Your task to perform on an android device: Go to calendar. Show me events next week Image 0: 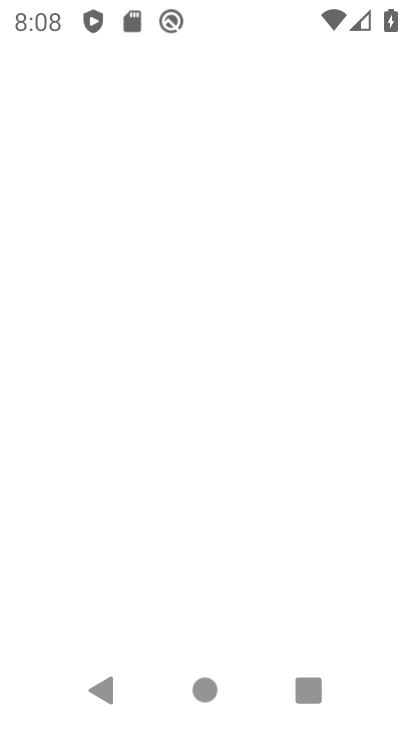
Step 0: click (181, 535)
Your task to perform on an android device: Go to calendar. Show me events next week Image 1: 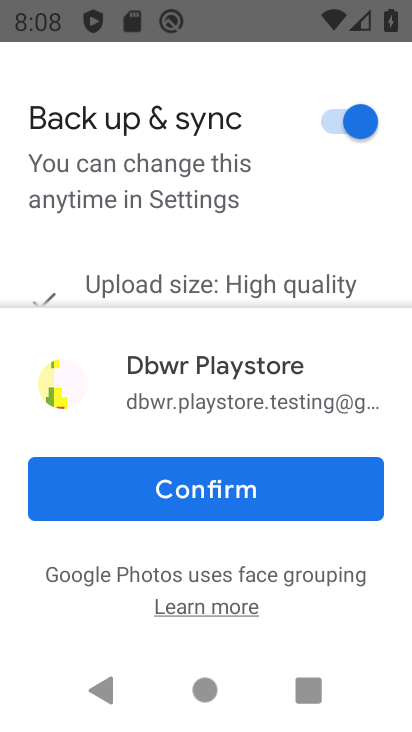
Step 1: click (213, 685)
Your task to perform on an android device: Go to calendar. Show me events next week Image 2: 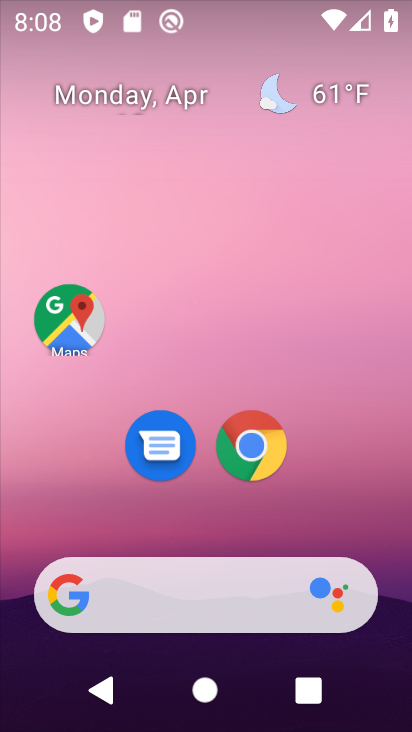
Step 2: drag from (183, 554) to (264, 150)
Your task to perform on an android device: Go to calendar. Show me events next week Image 3: 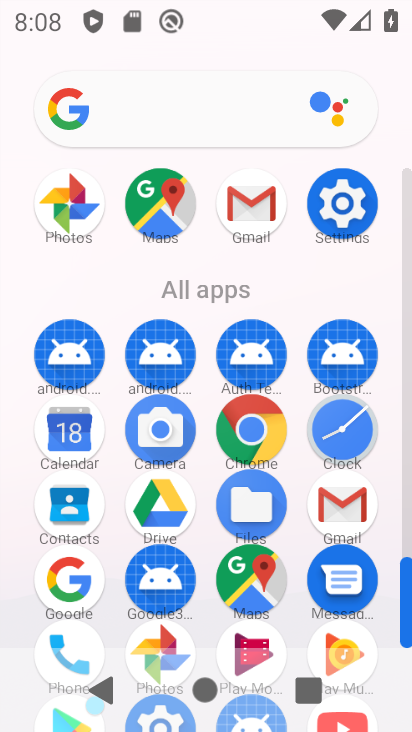
Step 3: click (64, 433)
Your task to perform on an android device: Go to calendar. Show me events next week Image 4: 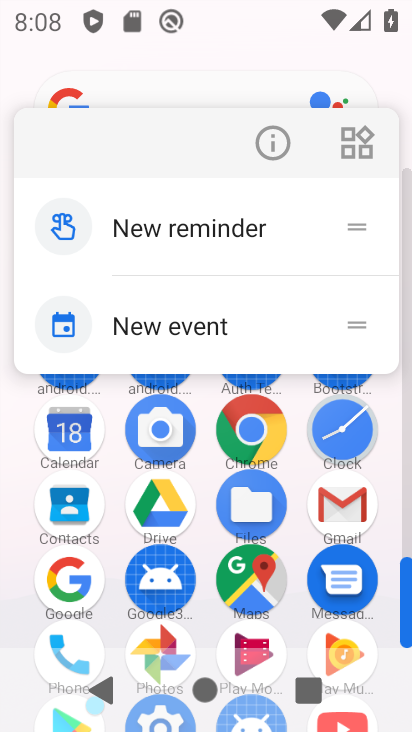
Step 4: click (65, 421)
Your task to perform on an android device: Go to calendar. Show me events next week Image 5: 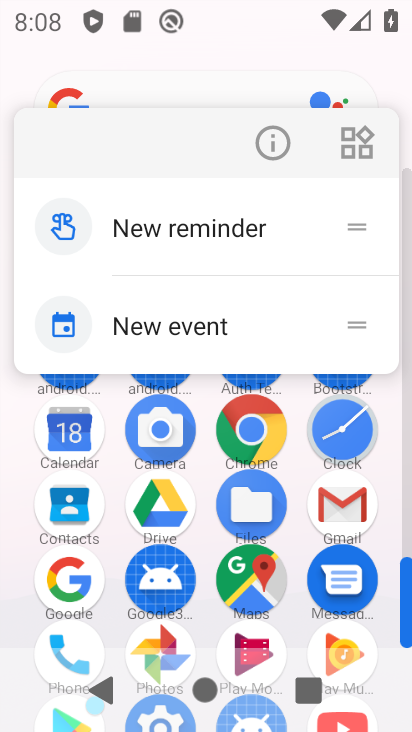
Step 5: click (65, 421)
Your task to perform on an android device: Go to calendar. Show me events next week Image 6: 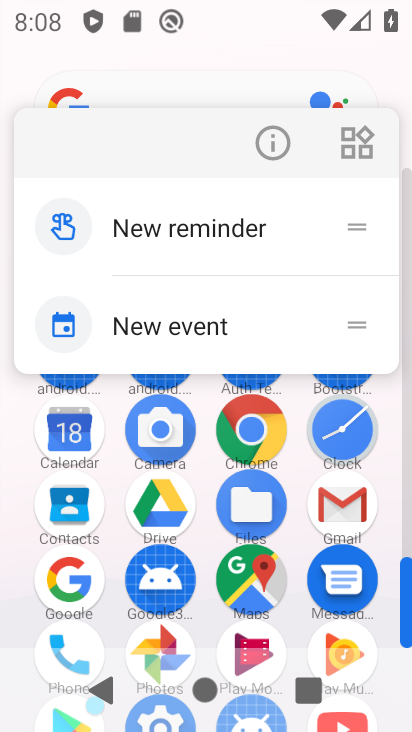
Step 6: click (74, 440)
Your task to perform on an android device: Go to calendar. Show me events next week Image 7: 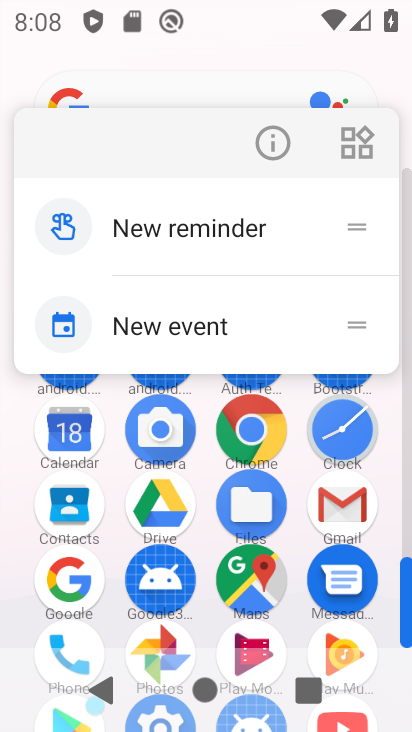
Step 7: click (74, 439)
Your task to perform on an android device: Go to calendar. Show me events next week Image 8: 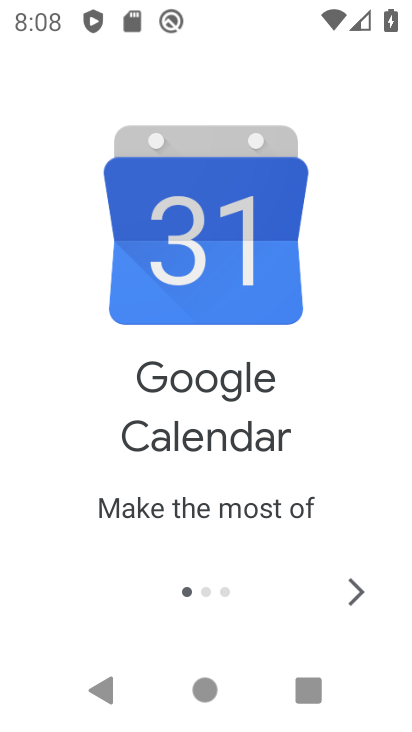
Step 8: click (360, 589)
Your task to perform on an android device: Go to calendar. Show me events next week Image 9: 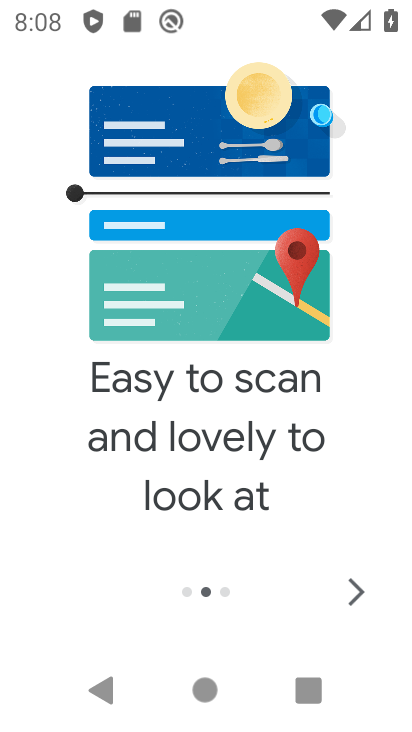
Step 9: click (360, 585)
Your task to perform on an android device: Go to calendar. Show me events next week Image 10: 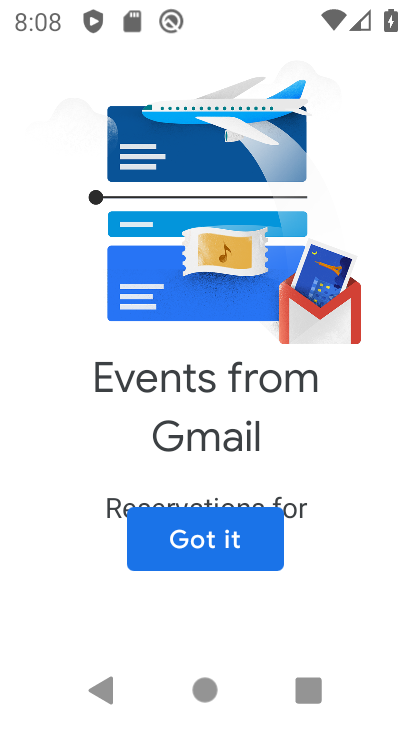
Step 10: click (215, 524)
Your task to perform on an android device: Go to calendar. Show me events next week Image 11: 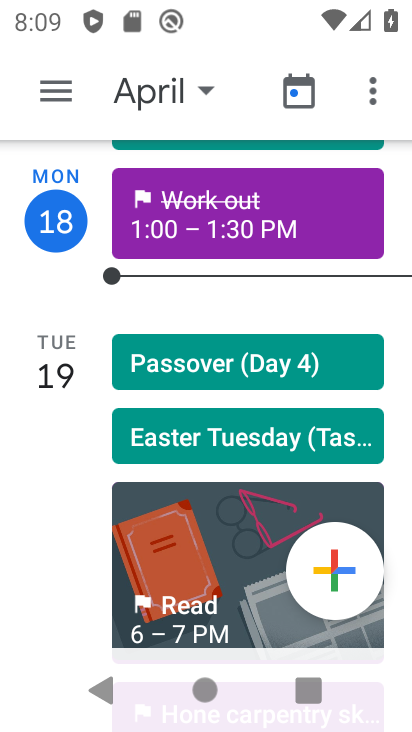
Step 11: click (203, 85)
Your task to perform on an android device: Go to calendar. Show me events next week Image 12: 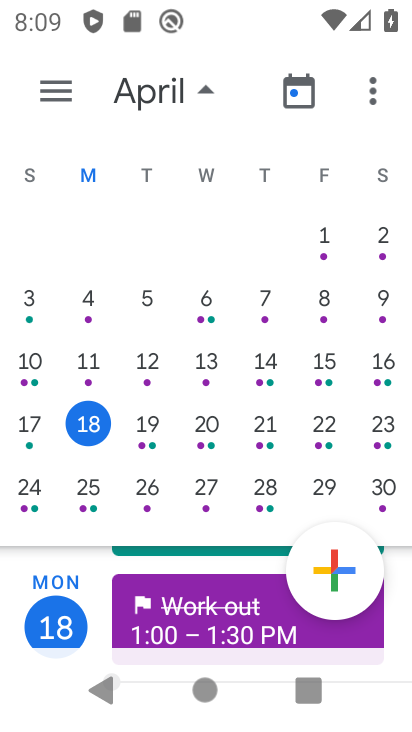
Step 12: click (157, 486)
Your task to perform on an android device: Go to calendar. Show me events next week Image 13: 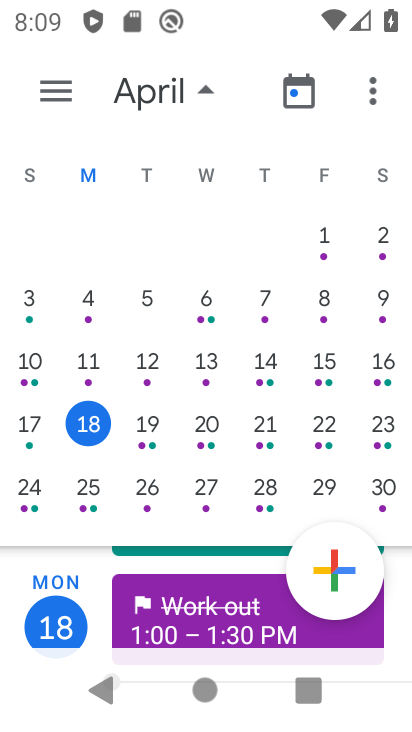
Step 13: click (152, 484)
Your task to perform on an android device: Go to calendar. Show me events next week Image 14: 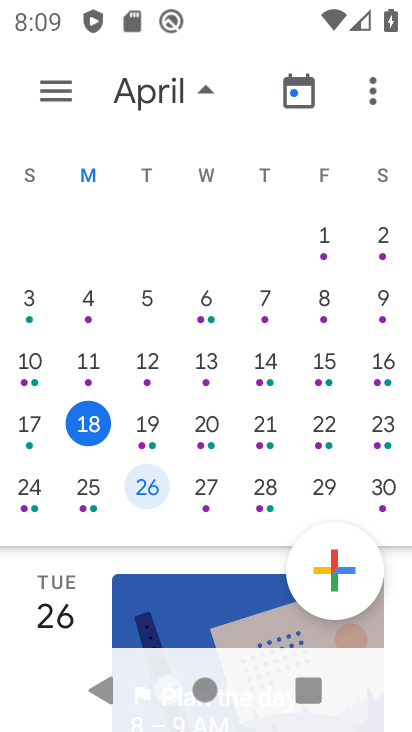
Step 14: click (55, 97)
Your task to perform on an android device: Go to calendar. Show me events next week Image 15: 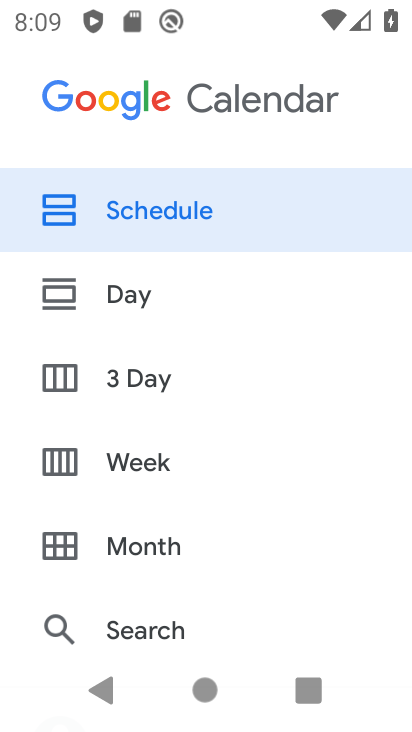
Step 15: click (166, 468)
Your task to perform on an android device: Go to calendar. Show me events next week Image 16: 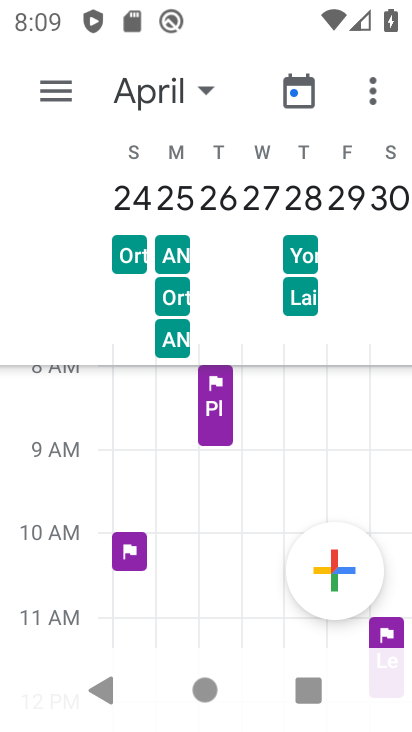
Step 16: click (371, 78)
Your task to perform on an android device: Go to calendar. Show me events next week Image 17: 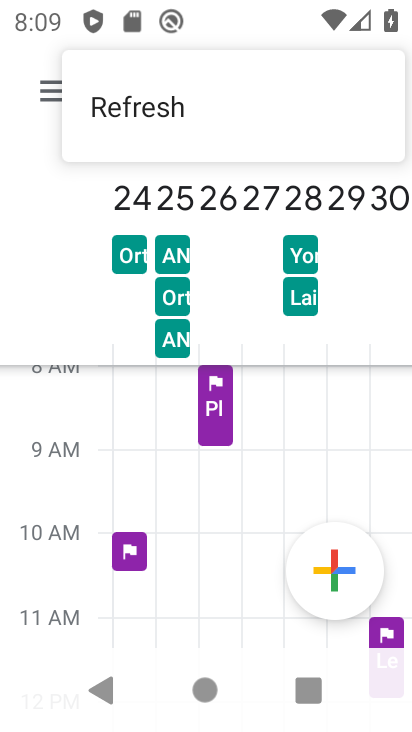
Step 17: drag from (106, 413) to (102, 572)
Your task to perform on an android device: Go to calendar. Show me events next week Image 18: 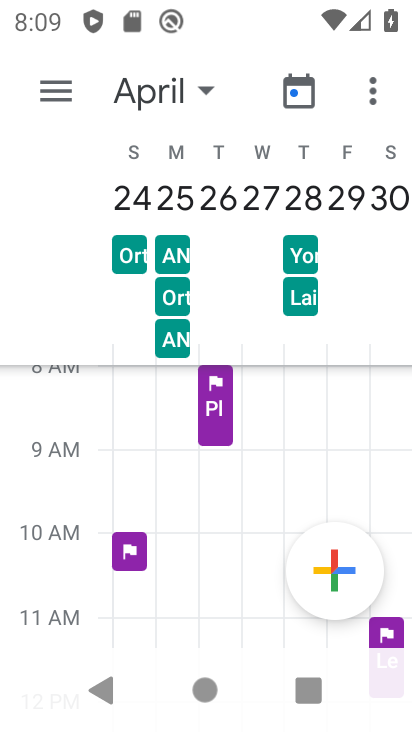
Step 18: click (150, 548)
Your task to perform on an android device: Go to calendar. Show me events next week Image 19: 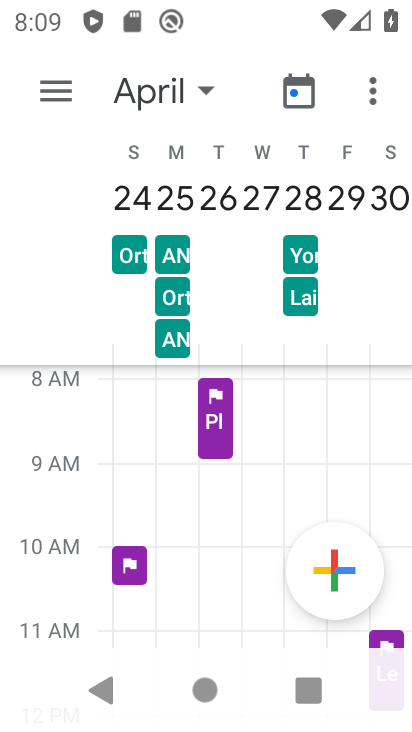
Step 19: drag from (139, 414) to (147, 610)
Your task to perform on an android device: Go to calendar. Show me events next week Image 20: 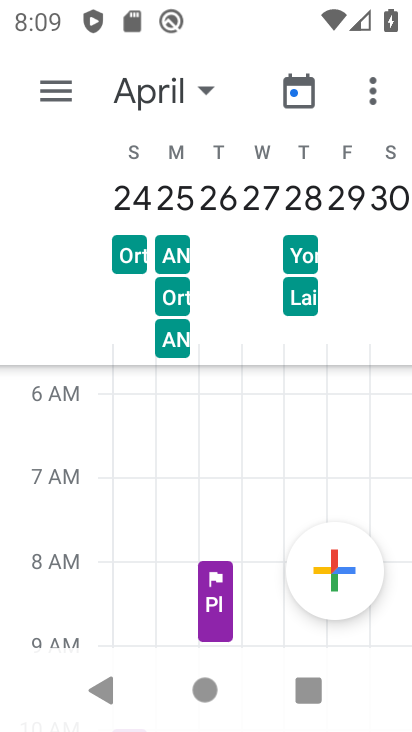
Step 20: drag from (143, 425) to (148, 569)
Your task to perform on an android device: Go to calendar. Show me events next week Image 21: 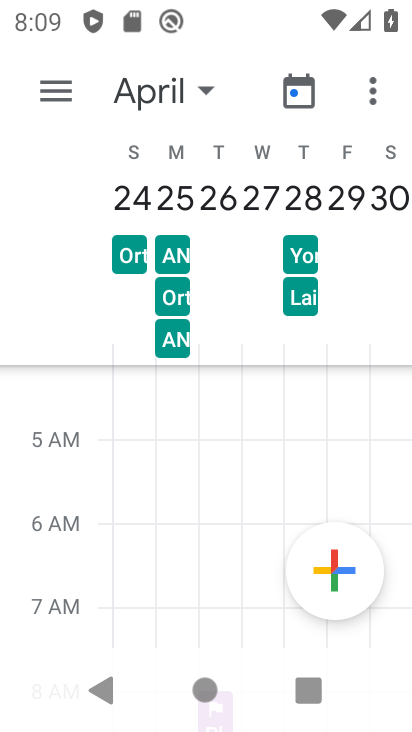
Step 21: click (38, 87)
Your task to perform on an android device: Go to calendar. Show me events next week Image 22: 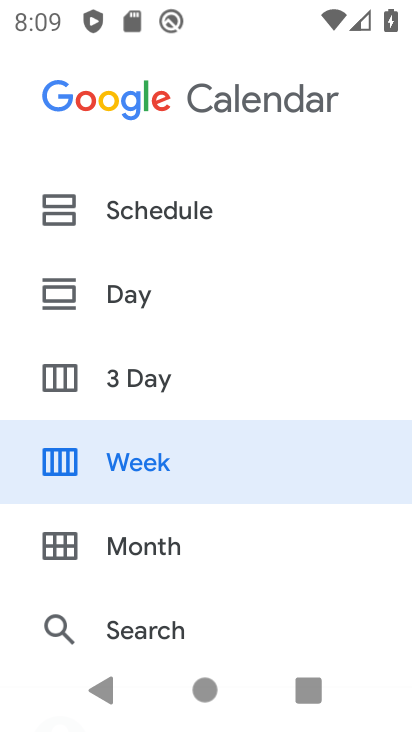
Step 22: drag from (143, 569) to (187, 210)
Your task to perform on an android device: Go to calendar. Show me events next week Image 23: 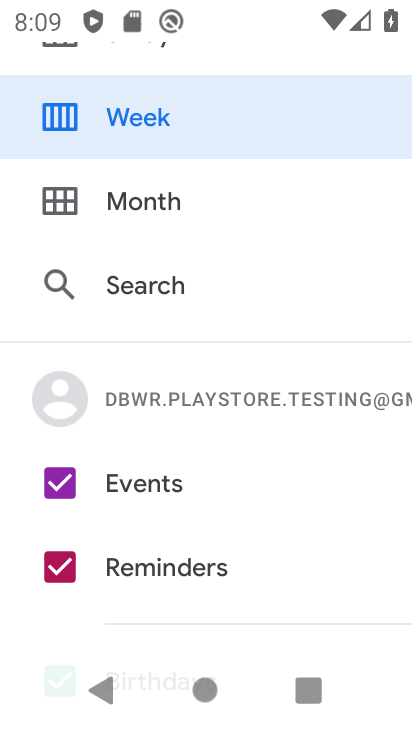
Step 23: click (148, 486)
Your task to perform on an android device: Go to calendar. Show me events next week Image 24: 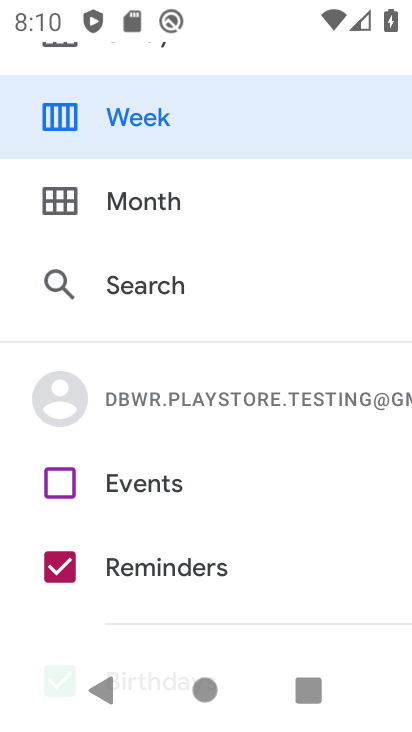
Step 24: click (148, 484)
Your task to perform on an android device: Go to calendar. Show me events next week Image 25: 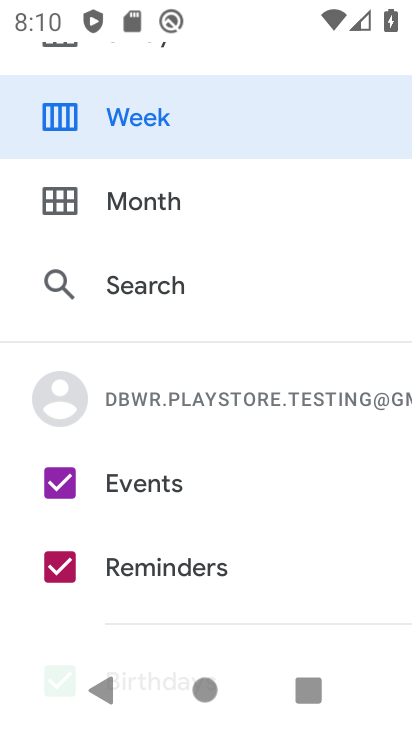
Step 25: click (103, 685)
Your task to perform on an android device: Go to calendar. Show me events next week Image 26: 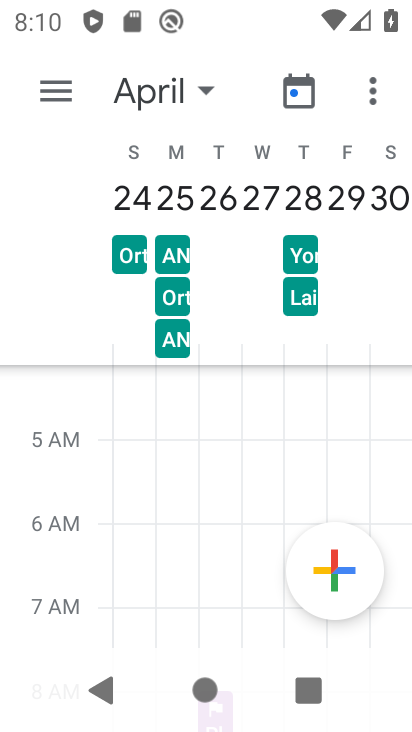
Step 26: task complete